Your task to perform on an android device: Open Yahoo.com Image 0: 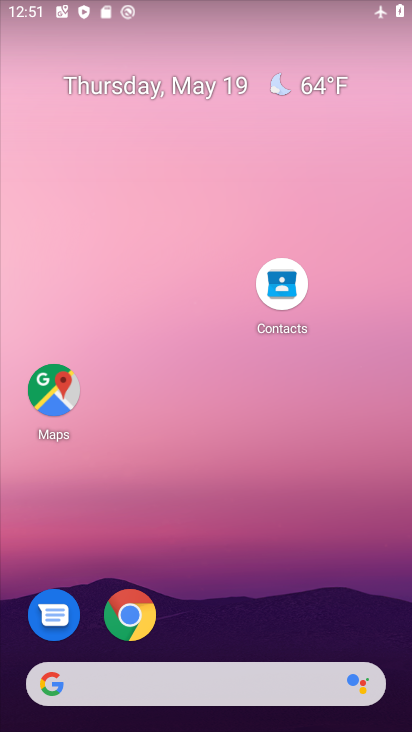
Step 0: drag from (274, 685) to (350, 266)
Your task to perform on an android device: Open Yahoo.com Image 1: 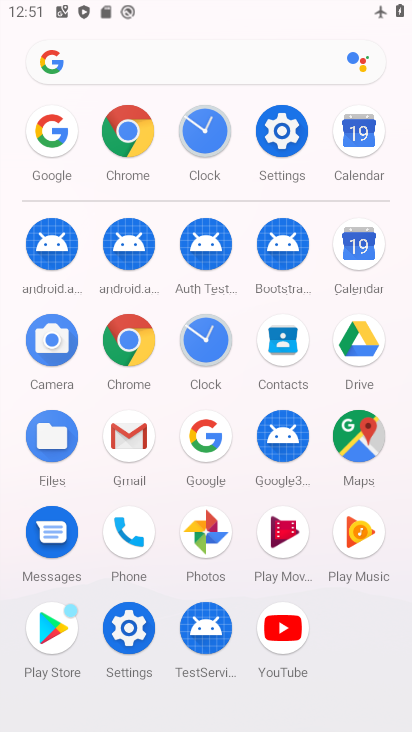
Step 1: click (152, 155)
Your task to perform on an android device: Open Yahoo.com Image 2: 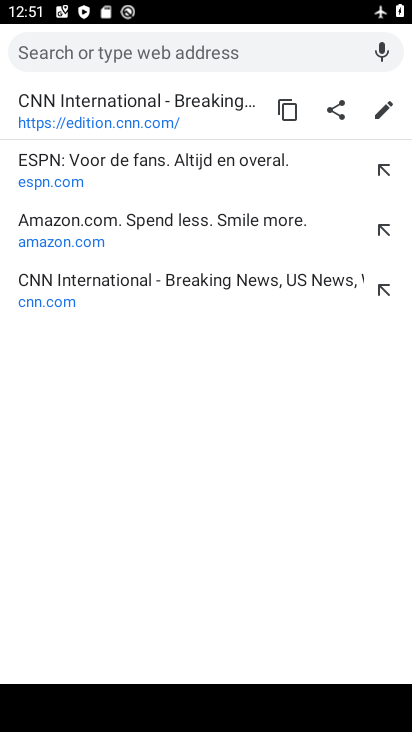
Step 2: click (220, 51)
Your task to perform on an android device: Open Yahoo.com Image 3: 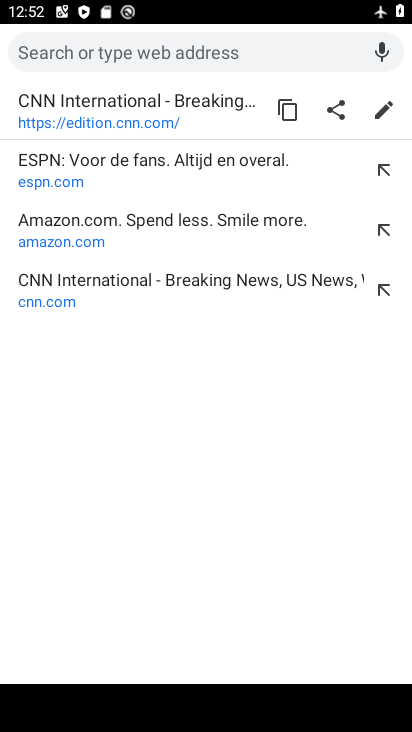
Step 3: type "yahoo"
Your task to perform on an android device: Open Yahoo.com Image 4: 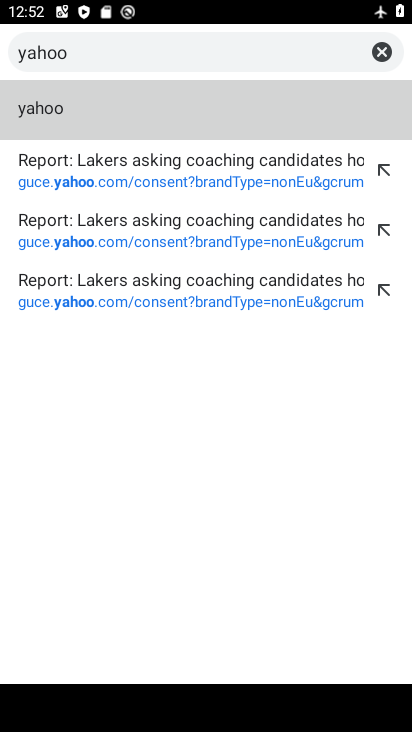
Step 4: click (133, 163)
Your task to perform on an android device: Open Yahoo.com Image 5: 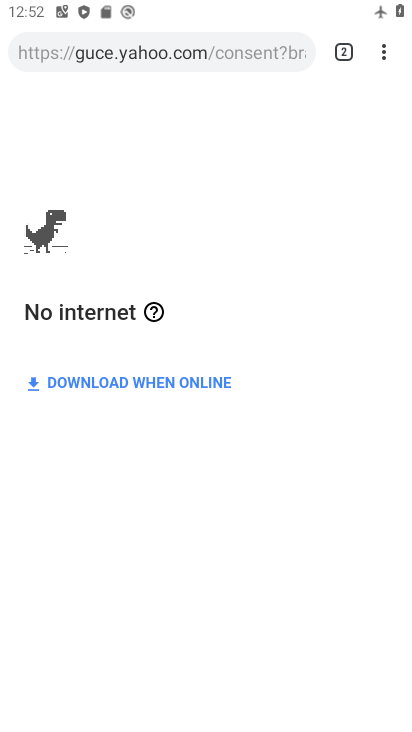
Step 5: task complete